Your task to perform on an android device: turn on airplane mode Image 0: 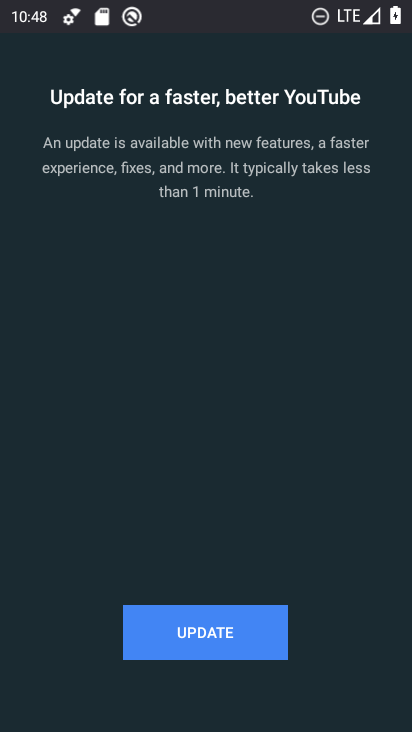
Step 0: press home button
Your task to perform on an android device: turn on airplane mode Image 1: 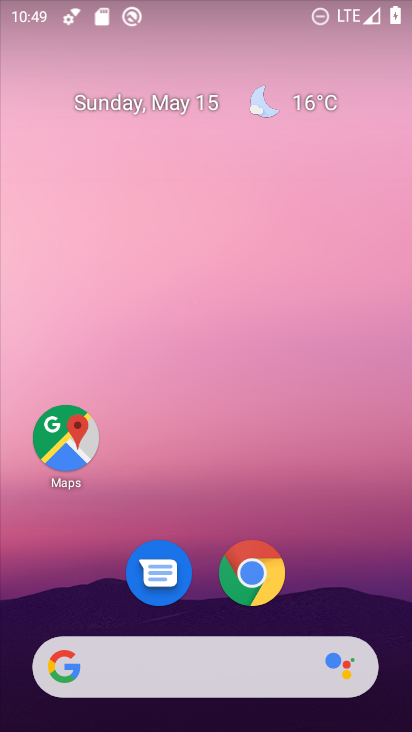
Step 1: drag from (364, 6) to (401, 504)
Your task to perform on an android device: turn on airplane mode Image 2: 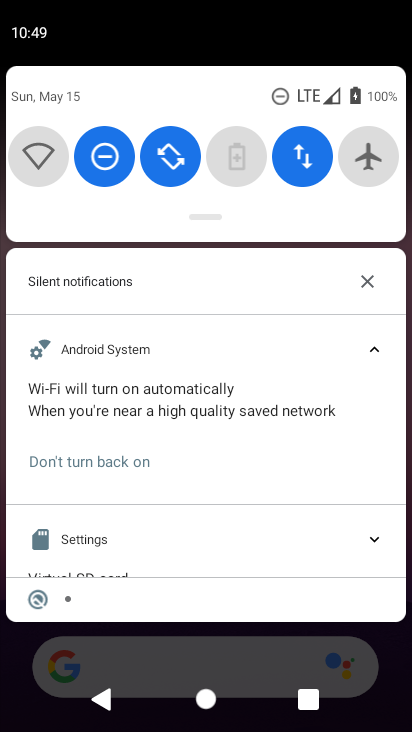
Step 2: click (361, 158)
Your task to perform on an android device: turn on airplane mode Image 3: 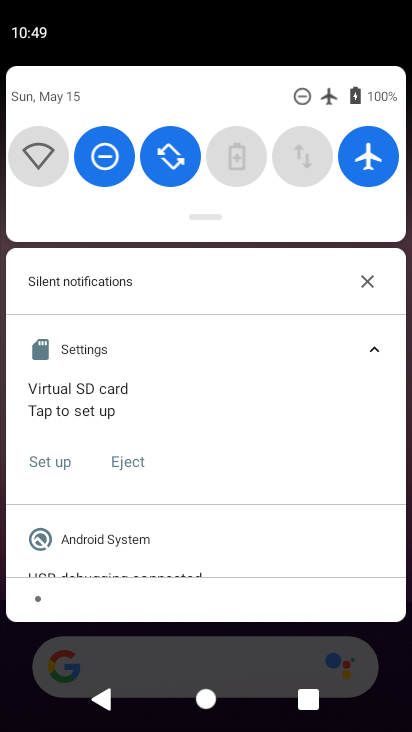
Step 3: task complete